Your task to perform on an android device: Where can I buy a nice beach cooler? Image 0: 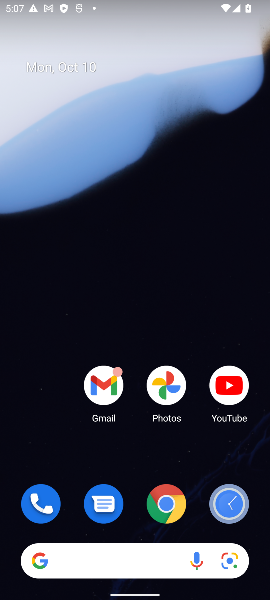
Step 0: drag from (155, 437) to (257, 45)
Your task to perform on an android device: Where can I buy a nice beach cooler? Image 1: 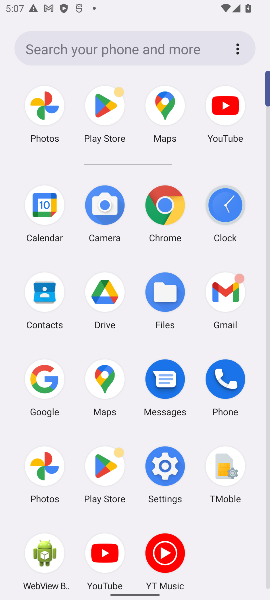
Step 1: click (152, 196)
Your task to perform on an android device: Where can I buy a nice beach cooler? Image 2: 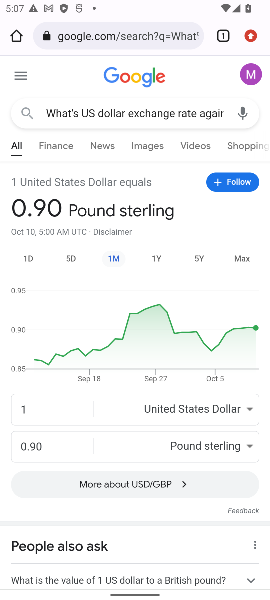
Step 2: click (138, 37)
Your task to perform on an android device: Where can I buy a nice beach cooler? Image 3: 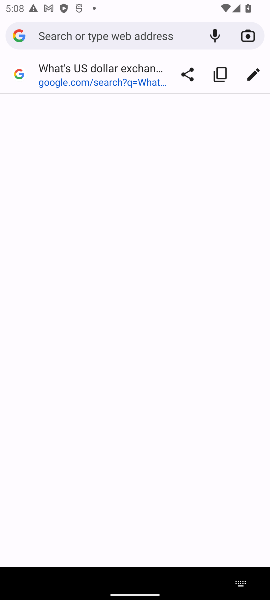
Step 3: type "Where can I buy a nice beach cooler?"
Your task to perform on an android device: Where can I buy a nice beach cooler? Image 4: 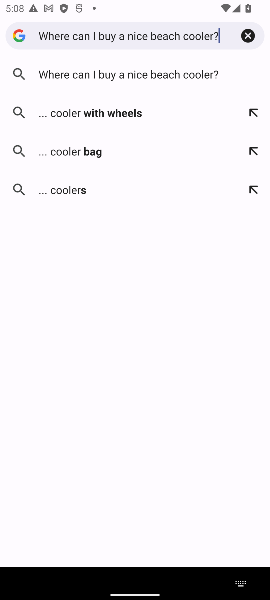
Step 4: press enter
Your task to perform on an android device: Where can I buy a nice beach cooler? Image 5: 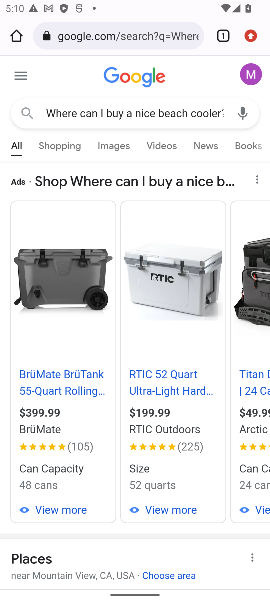
Step 5: task complete